Your task to perform on an android device: Show the shopping cart on walmart.com. Image 0: 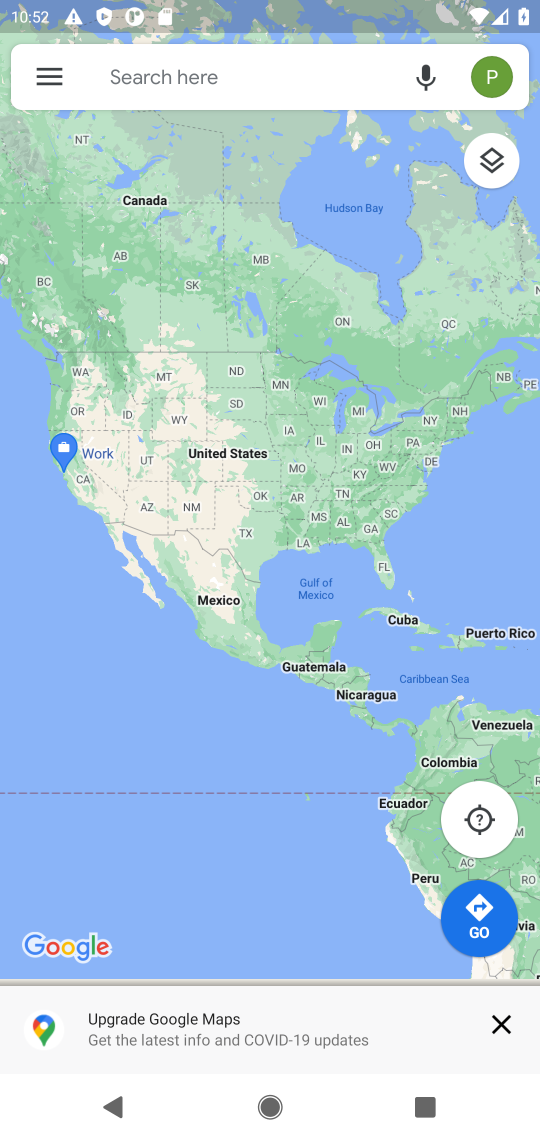
Step 0: press home button
Your task to perform on an android device: Show the shopping cart on walmart.com. Image 1: 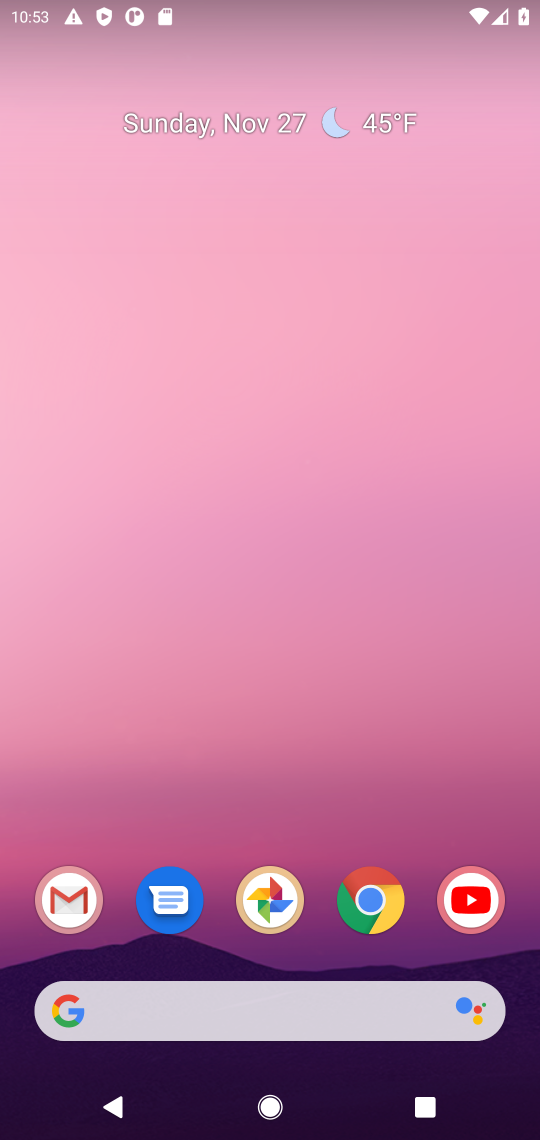
Step 1: click (371, 911)
Your task to perform on an android device: Show the shopping cart on walmart.com. Image 2: 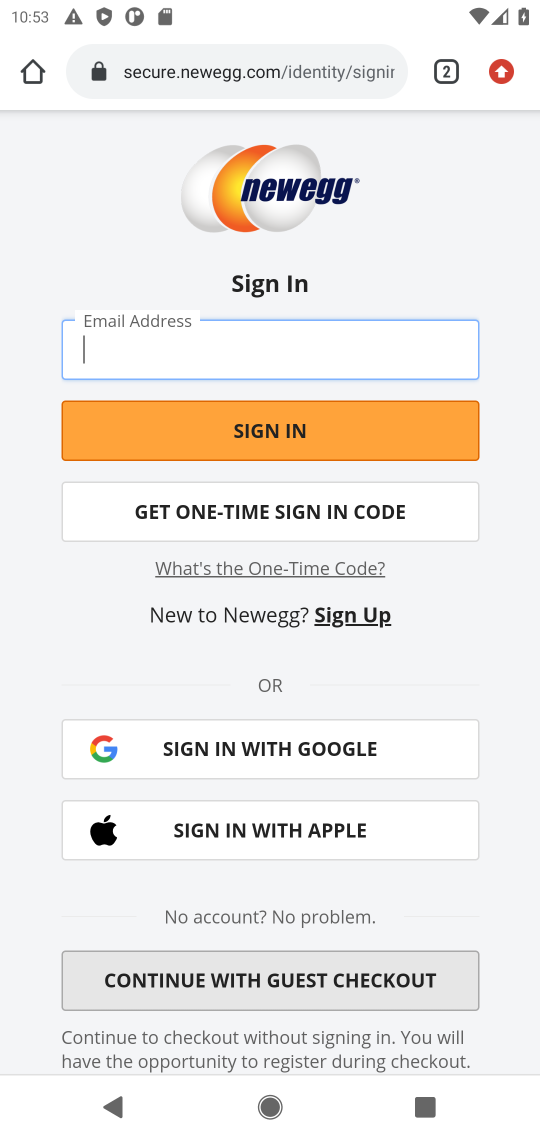
Step 2: click (163, 68)
Your task to perform on an android device: Show the shopping cart on walmart.com. Image 3: 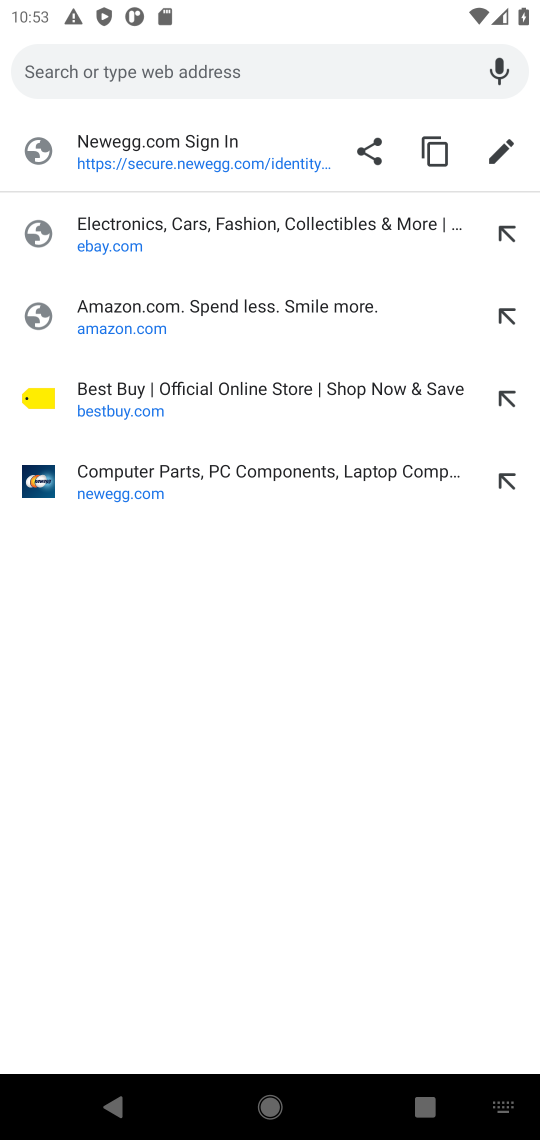
Step 3: type "walmart.com"
Your task to perform on an android device: Show the shopping cart on walmart.com. Image 4: 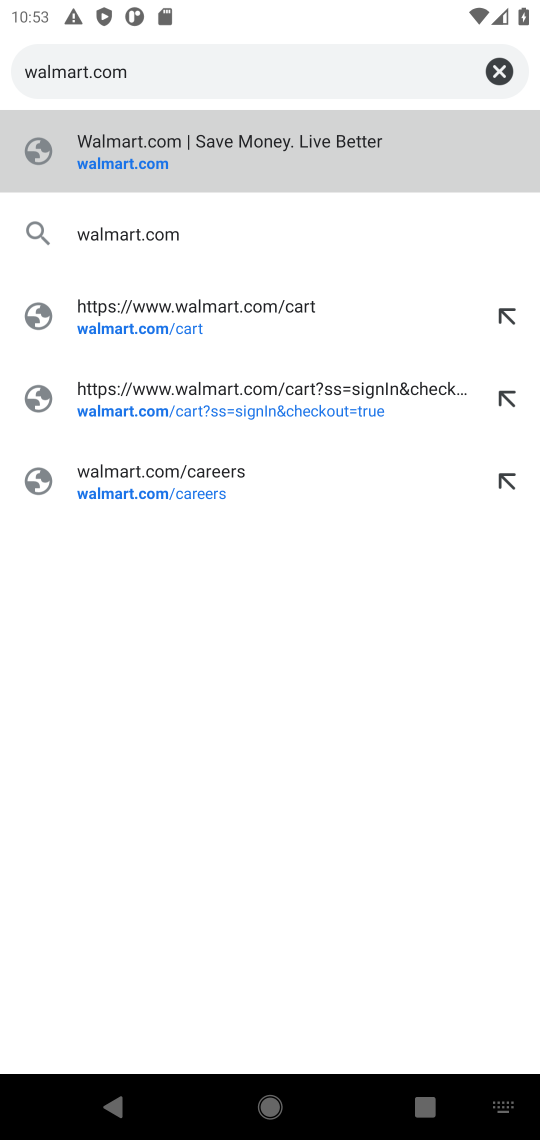
Step 4: click (119, 160)
Your task to perform on an android device: Show the shopping cart on walmart.com. Image 5: 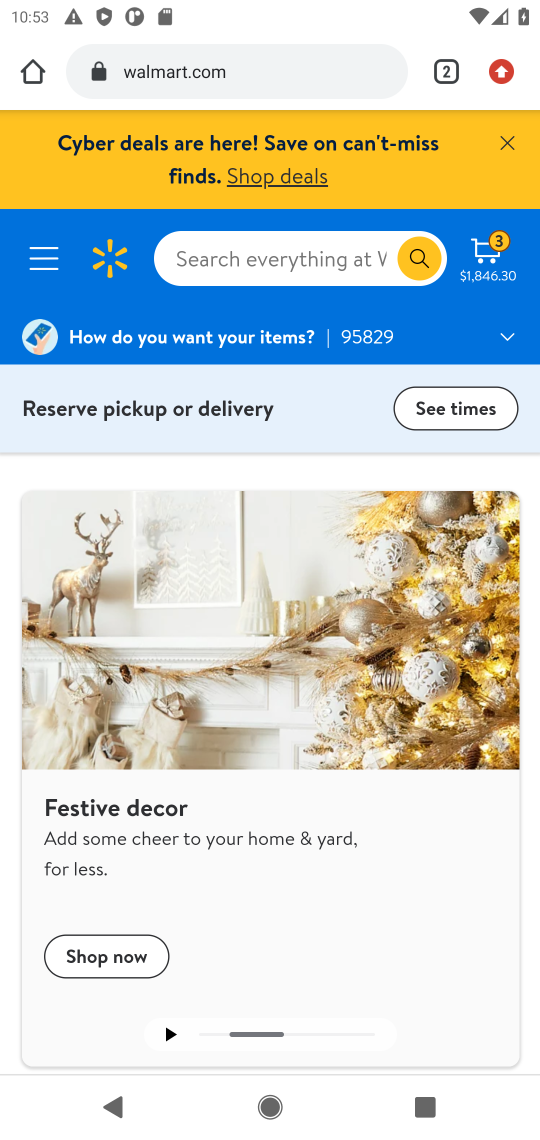
Step 5: click (489, 261)
Your task to perform on an android device: Show the shopping cart on walmart.com. Image 6: 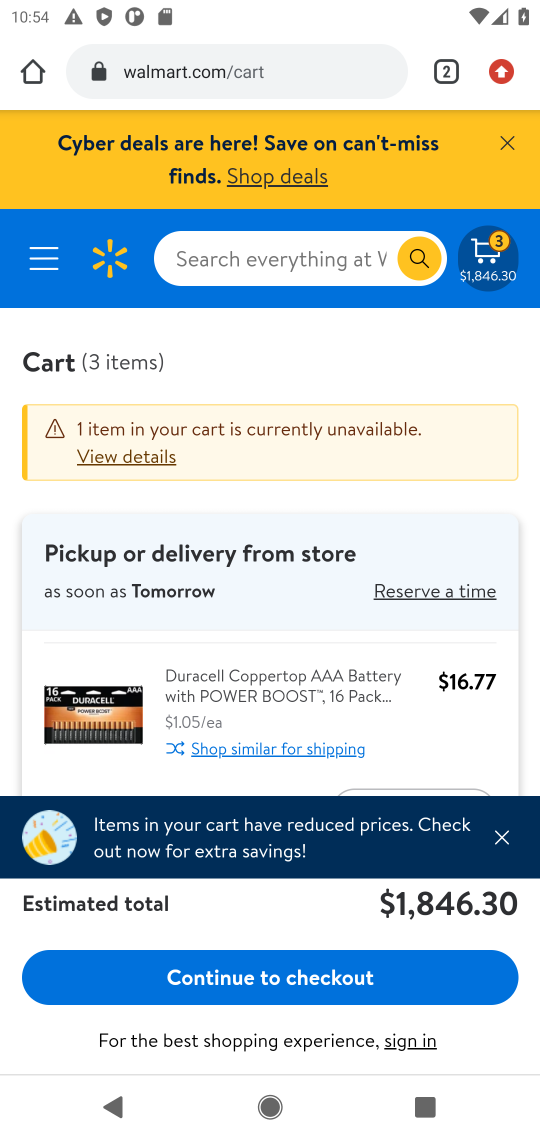
Step 6: task complete